Your task to perform on an android device: turn off javascript in the chrome app Image 0: 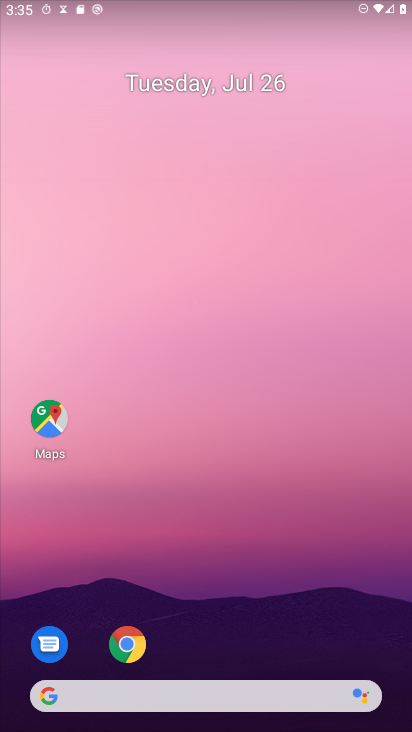
Step 0: press home button
Your task to perform on an android device: turn off javascript in the chrome app Image 1: 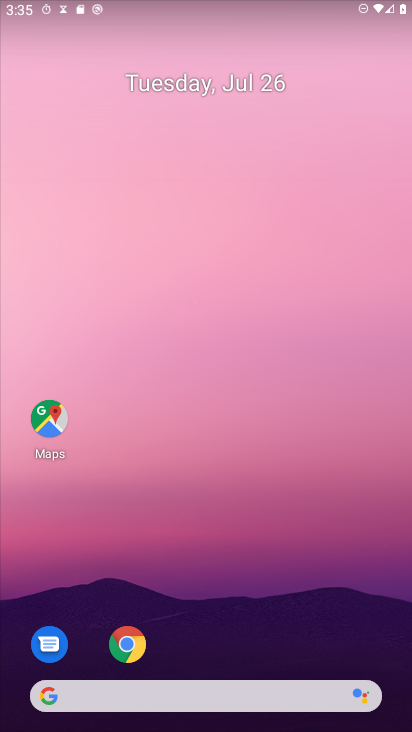
Step 1: drag from (244, 627) to (263, 23)
Your task to perform on an android device: turn off javascript in the chrome app Image 2: 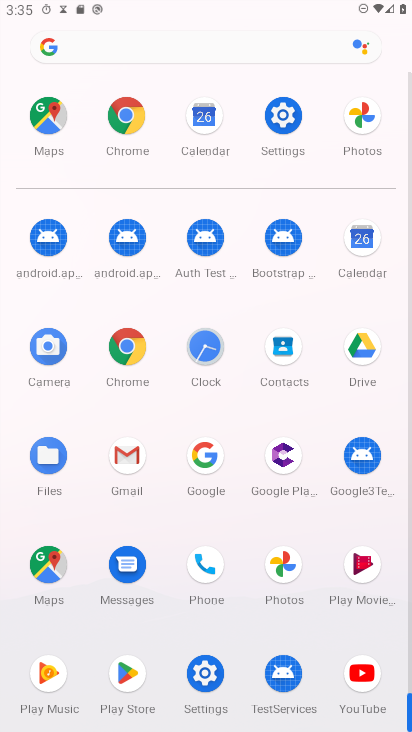
Step 2: click (291, 117)
Your task to perform on an android device: turn off javascript in the chrome app Image 3: 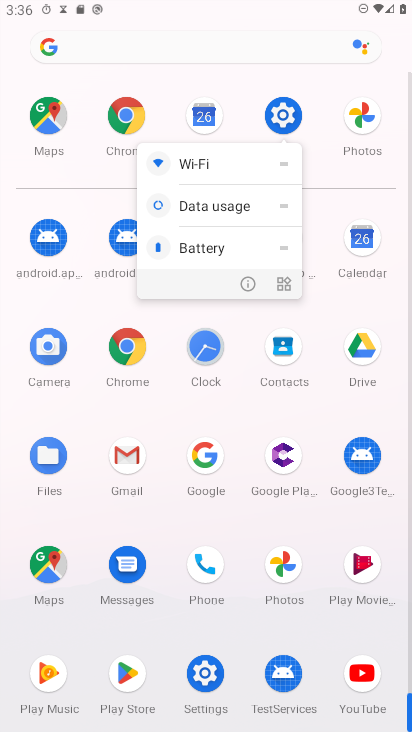
Step 3: click (130, 341)
Your task to perform on an android device: turn off javascript in the chrome app Image 4: 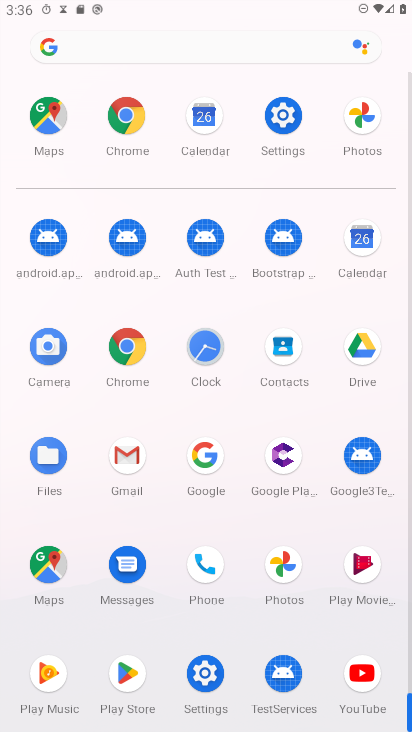
Step 4: click (130, 339)
Your task to perform on an android device: turn off javascript in the chrome app Image 5: 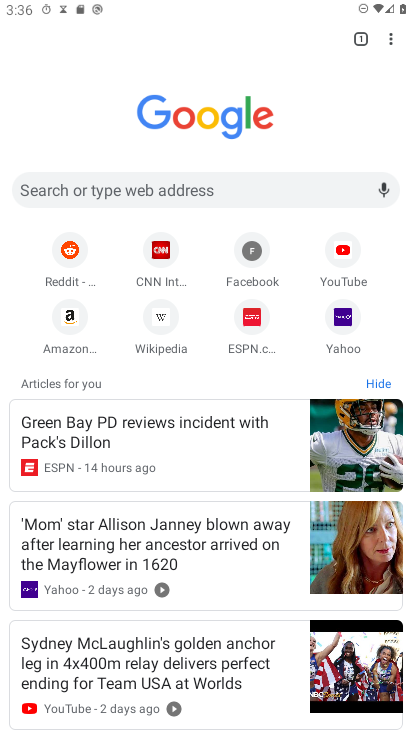
Step 5: drag from (392, 30) to (266, 321)
Your task to perform on an android device: turn off javascript in the chrome app Image 6: 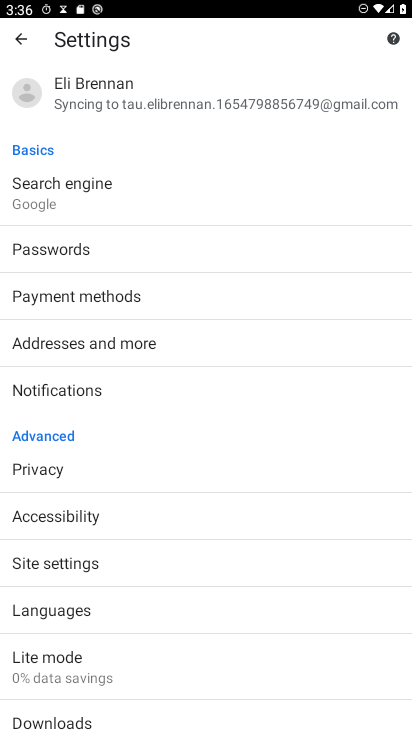
Step 6: click (81, 559)
Your task to perform on an android device: turn off javascript in the chrome app Image 7: 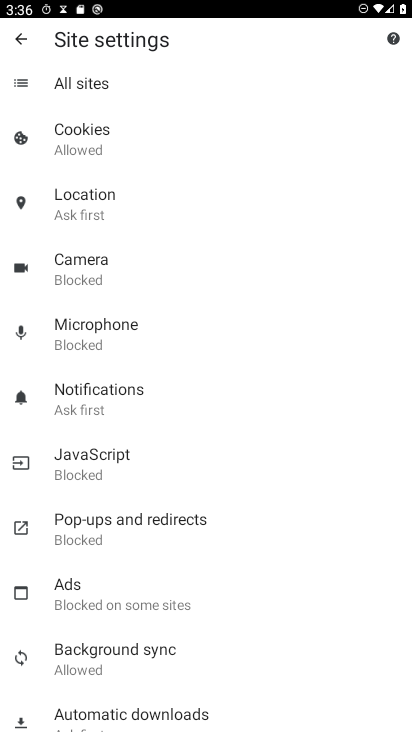
Step 7: click (90, 462)
Your task to perform on an android device: turn off javascript in the chrome app Image 8: 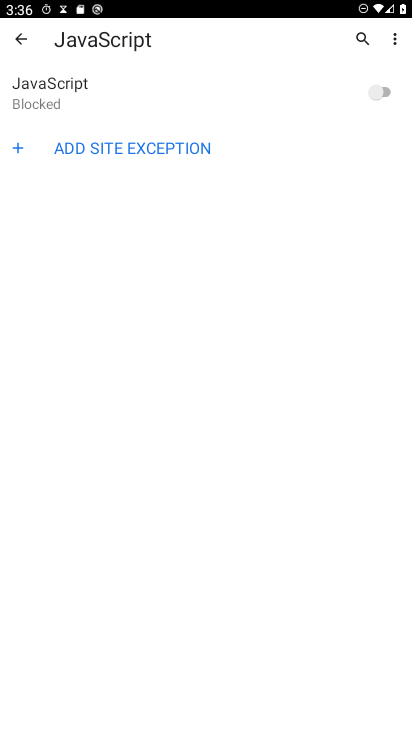
Step 8: task complete